Your task to perform on an android device: When is my next meeting? Image 0: 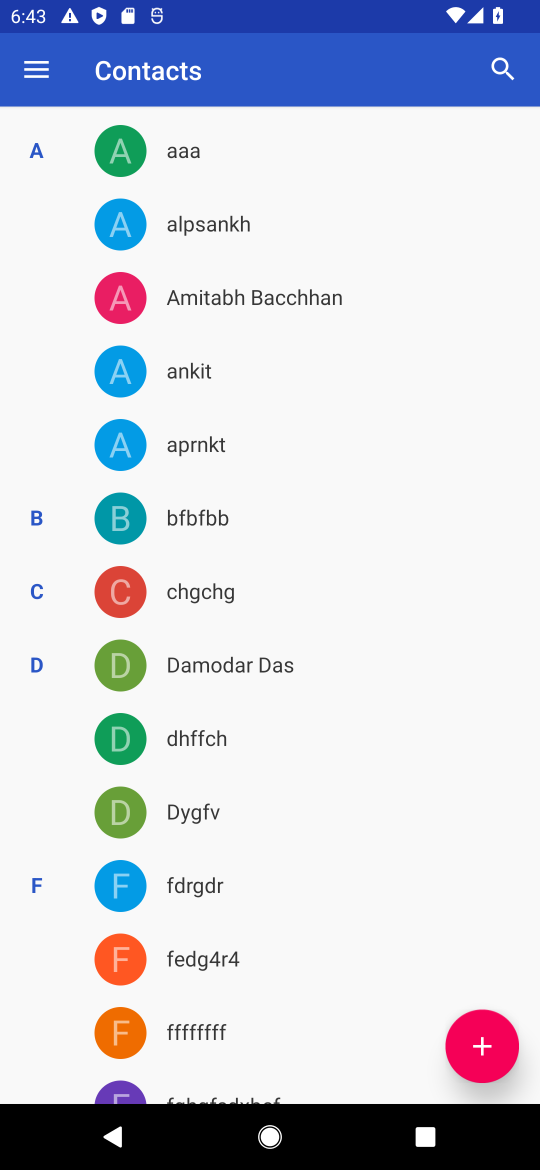
Step 0: press home button
Your task to perform on an android device: When is my next meeting? Image 1: 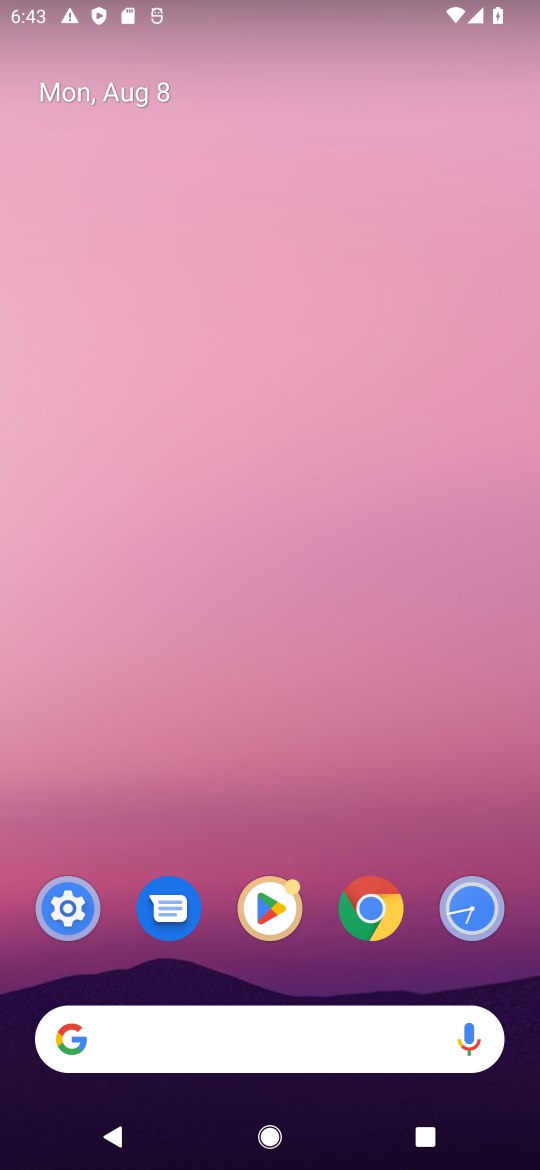
Step 1: click (110, 92)
Your task to perform on an android device: When is my next meeting? Image 2: 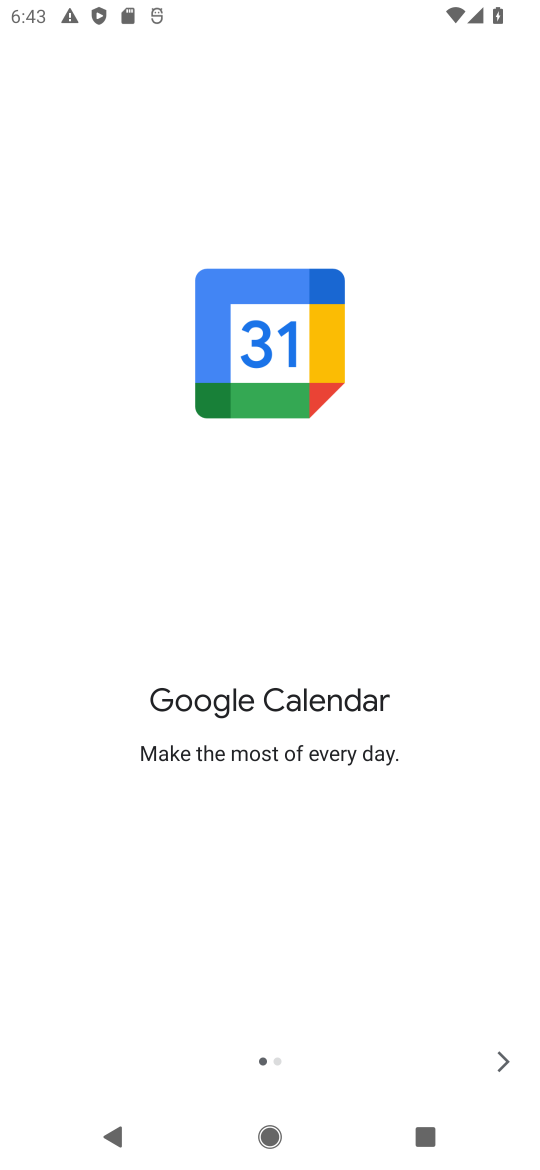
Step 2: click (166, 162)
Your task to perform on an android device: When is my next meeting? Image 3: 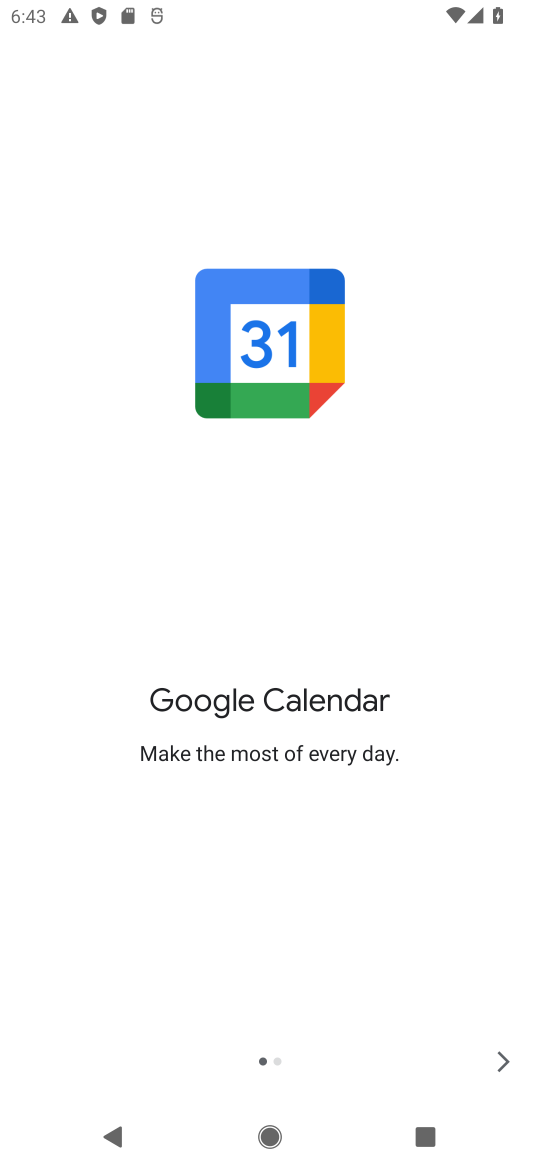
Step 3: click (497, 1074)
Your task to perform on an android device: When is my next meeting? Image 4: 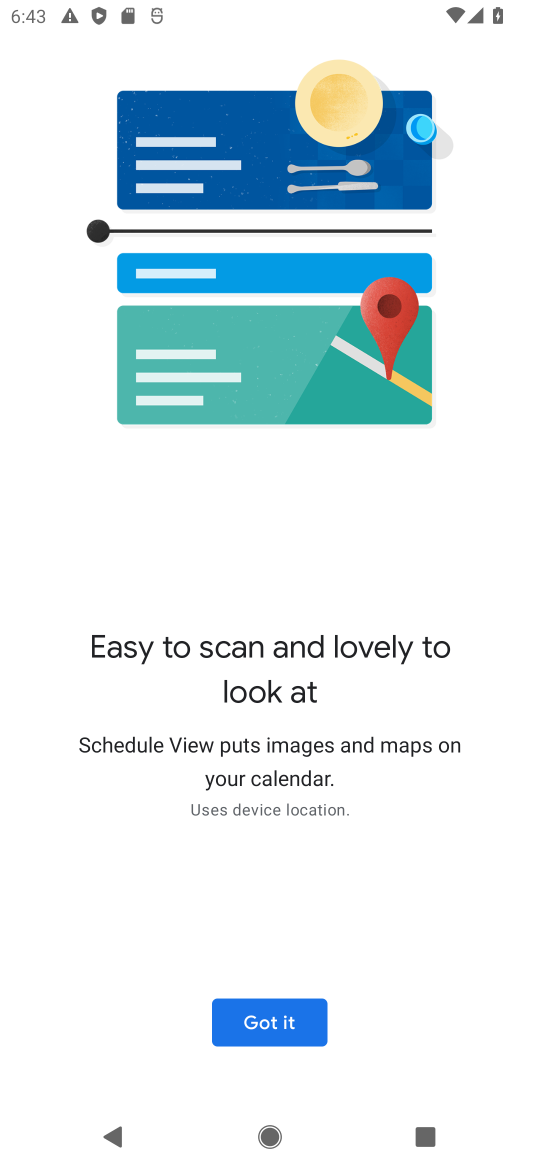
Step 4: click (250, 1027)
Your task to perform on an android device: When is my next meeting? Image 5: 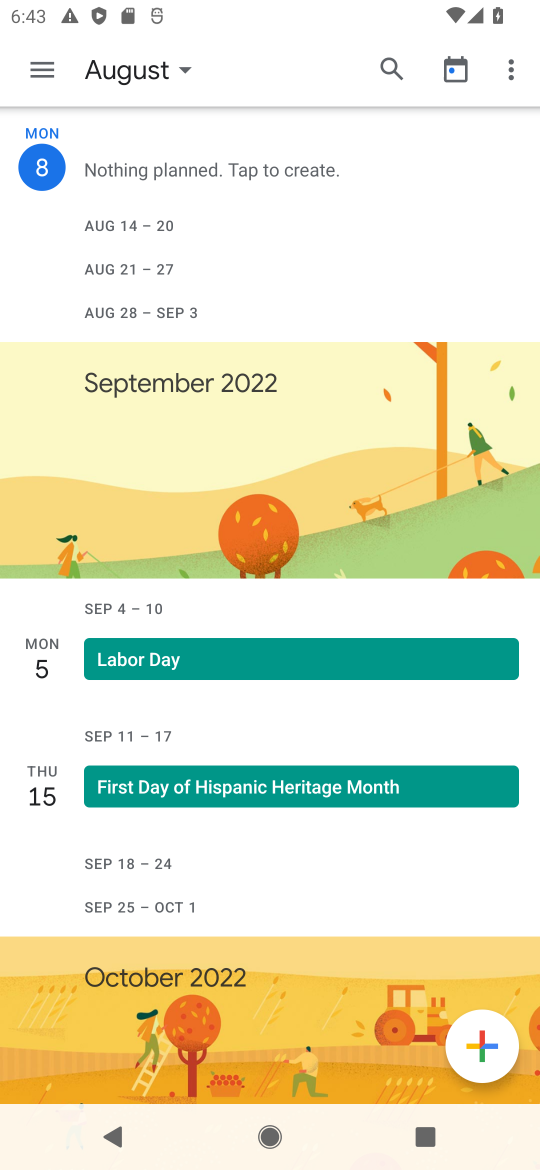
Step 5: click (42, 58)
Your task to perform on an android device: When is my next meeting? Image 6: 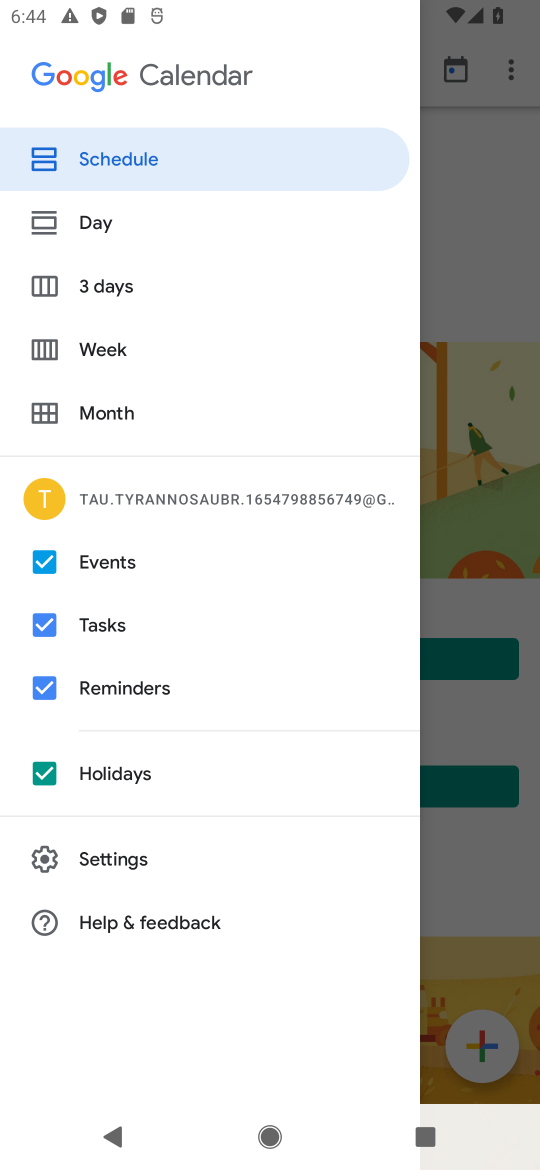
Step 6: task complete